Your task to perform on an android device: Go to network settings Image 0: 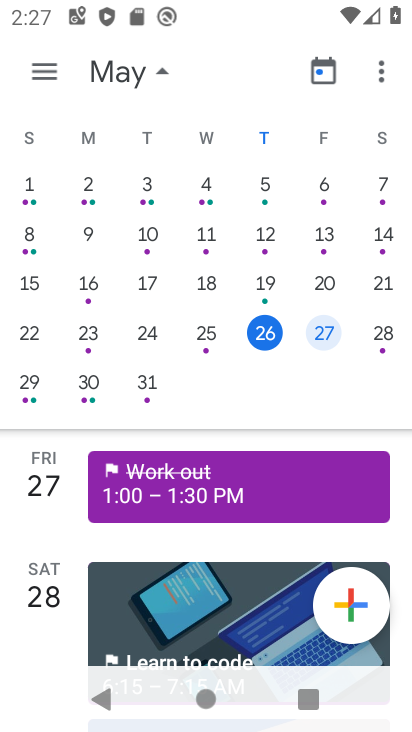
Step 0: press home button
Your task to perform on an android device: Go to network settings Image 1: 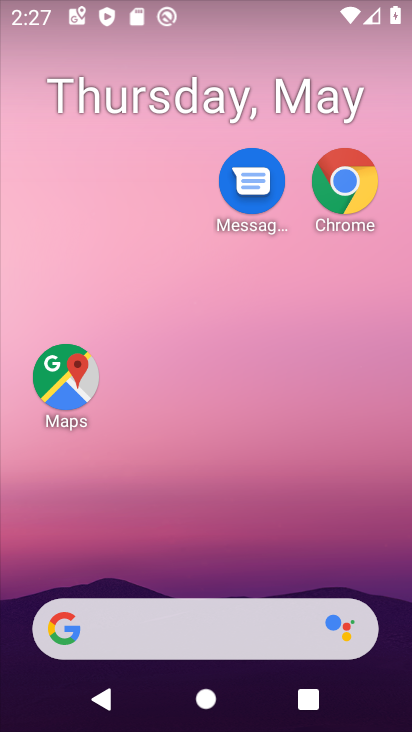
Step 1: drag from (180, 609) to (204, 27)
Your task to perform on an android device: Go to network settings Image 2: 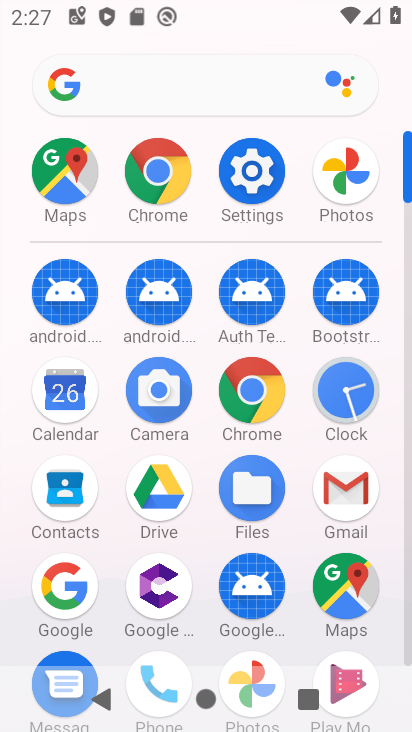
Step 2: click (261, 176)
Your task to perform on an android device: Go to network settings Image 3: 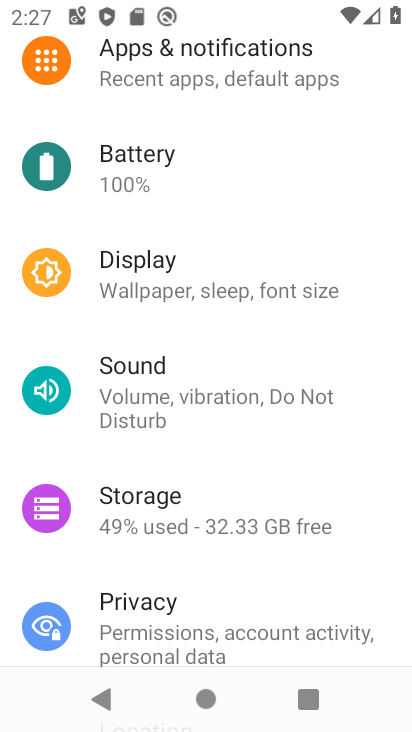
Step 3: drag from (250, 207) to (261, 663)
Your task to perform on an android device: Go to network settings Image 4: 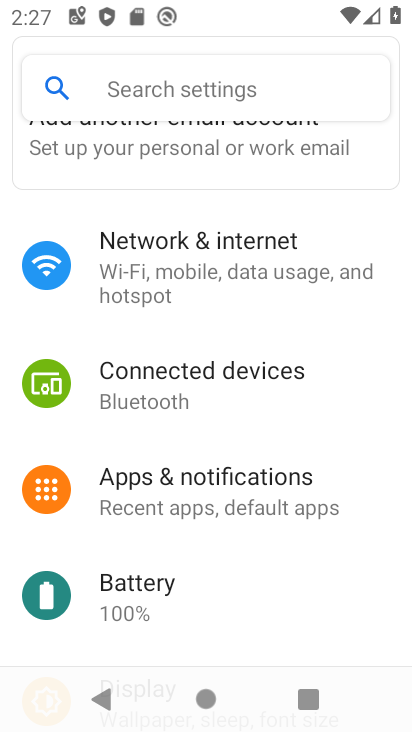
Step 4: click (206, 281)
Your task to perform on an android device: Go to network settings Image 5: 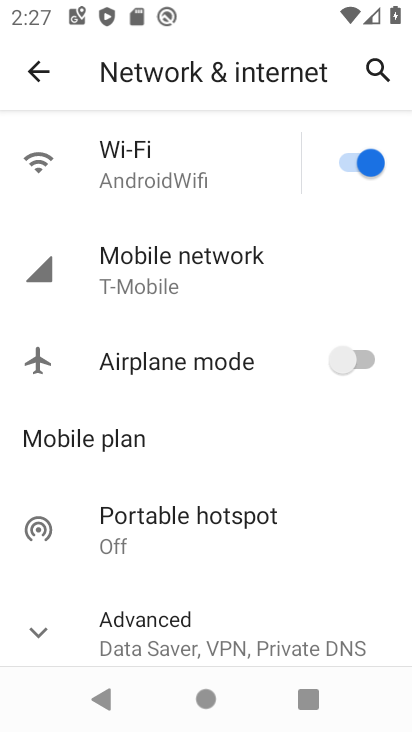
Step 5: task complete